Your task to perform on an android device: turn off airplane mode Image 0: 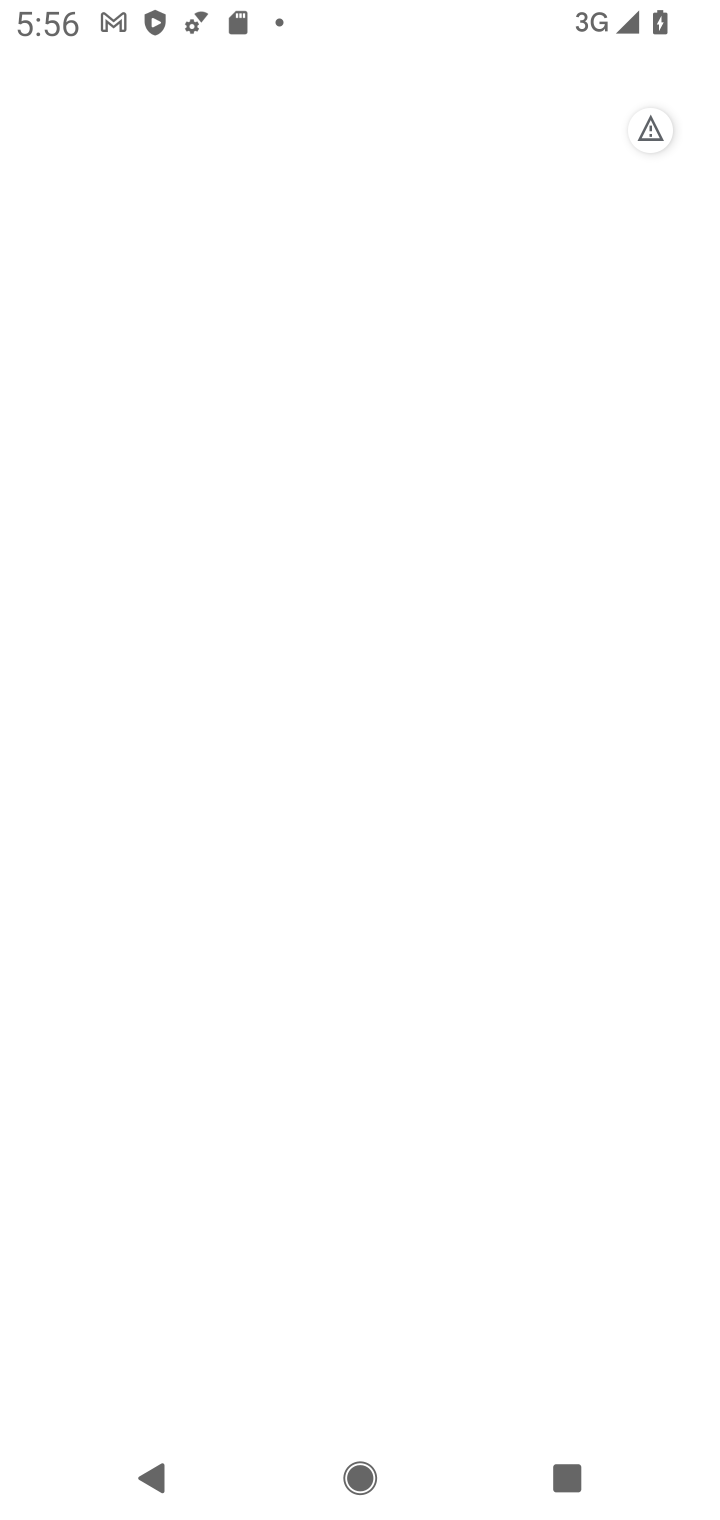
Step 0: press home button
Your task to perform on an android device: turn off airplane mode Image 1: 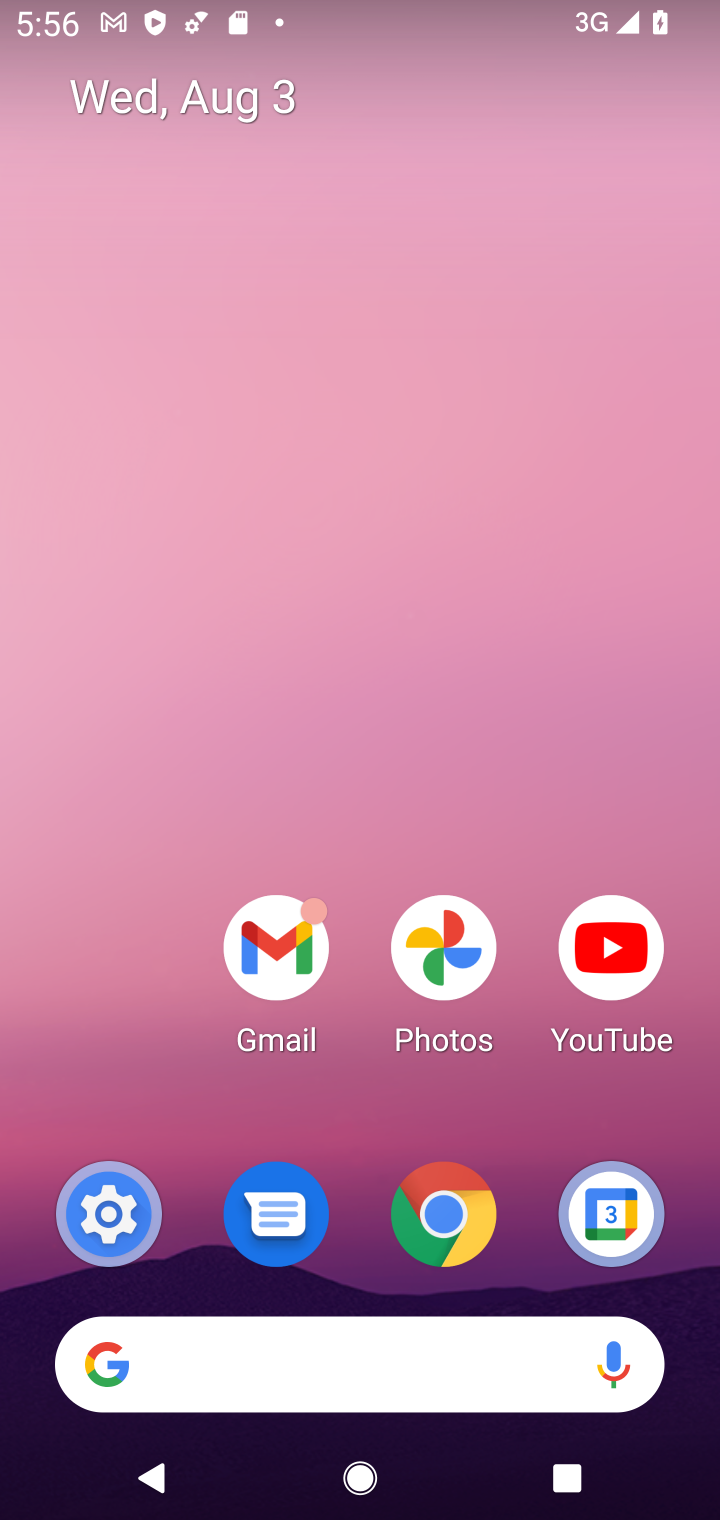
Step 1: drag from (346, 1145) to (525, 0)
Your task to perform on an android device: turn off airplane mode Image 2: 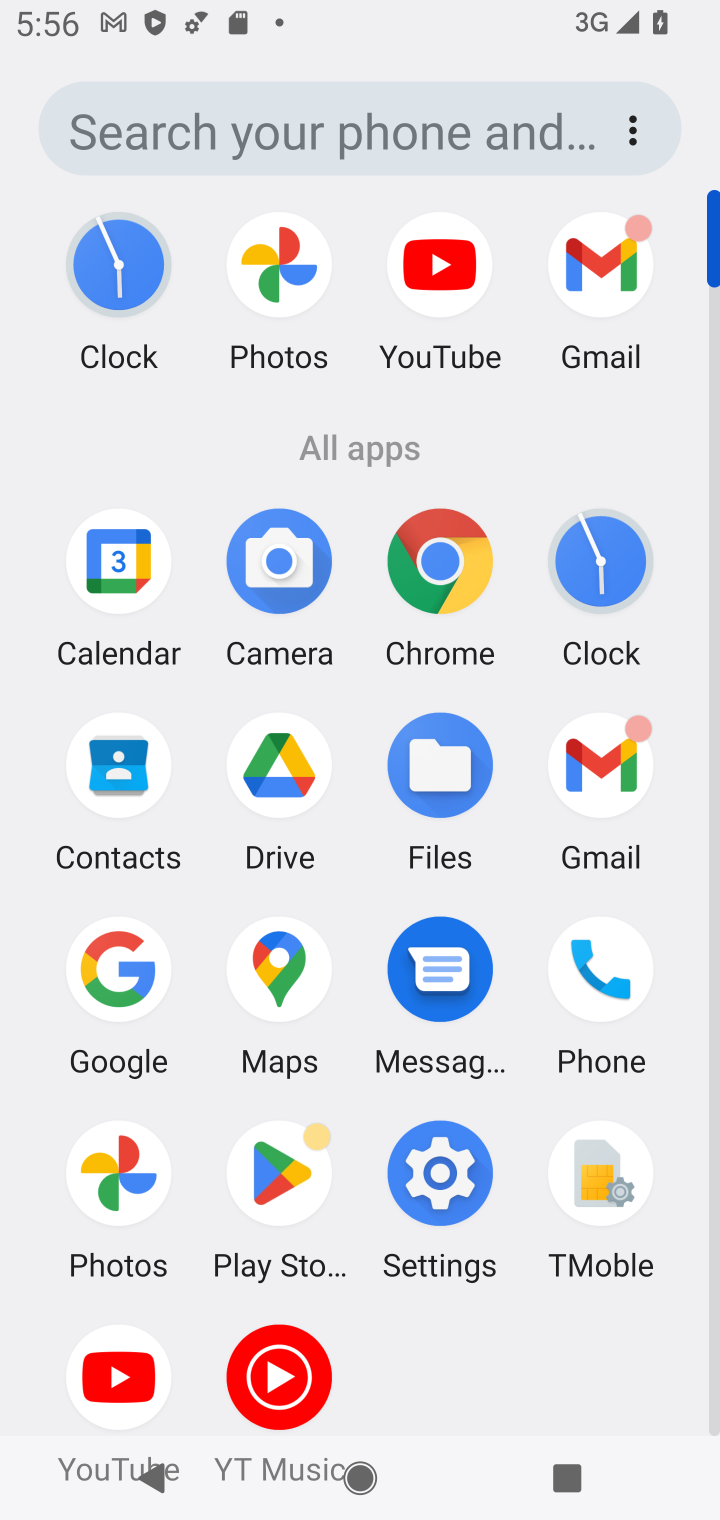
Step 2: click (447, 1188)
Your task to perform on an android device: turn off airplane mode Image 3: 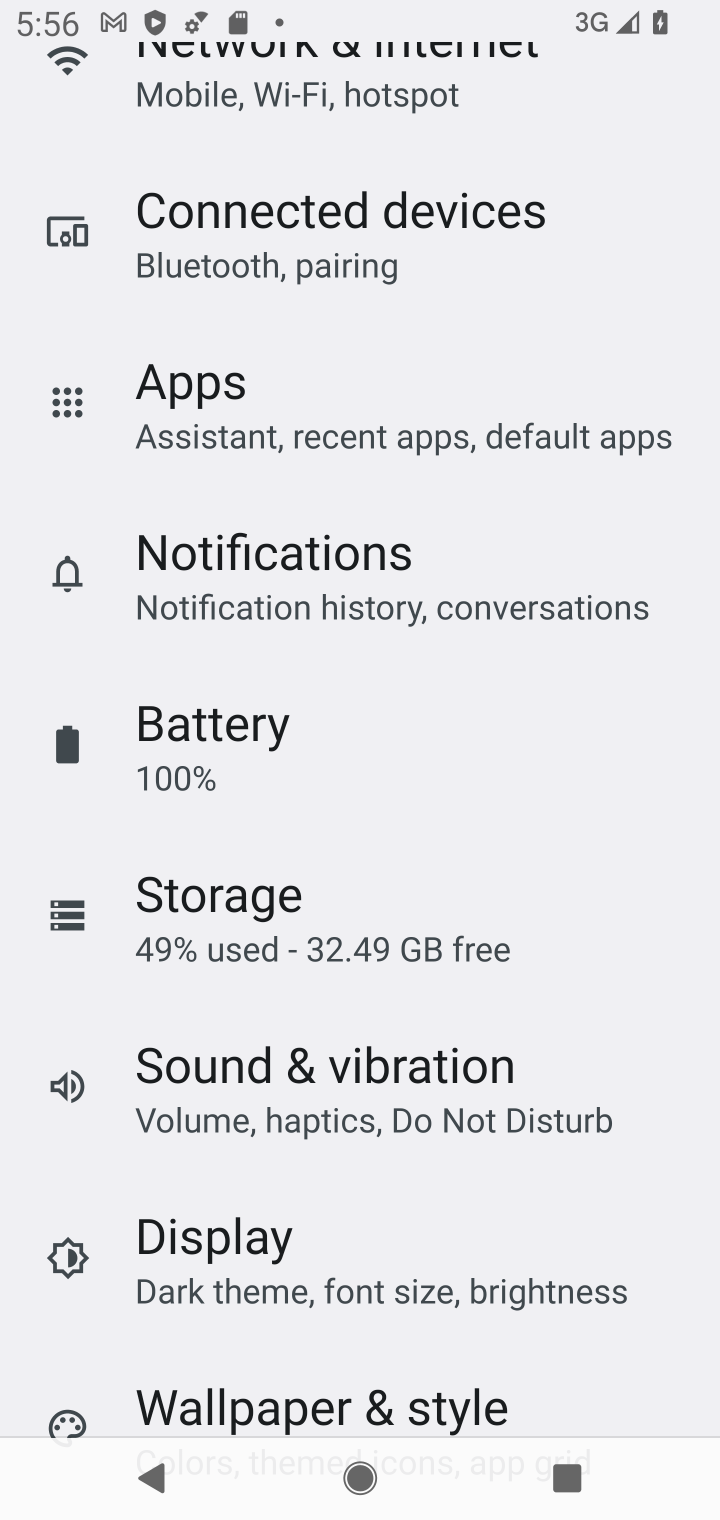
Step 3: drag from (241, 331) to (299, 692)
Your task to perform on an android device: turn off airplane mode Image 4: 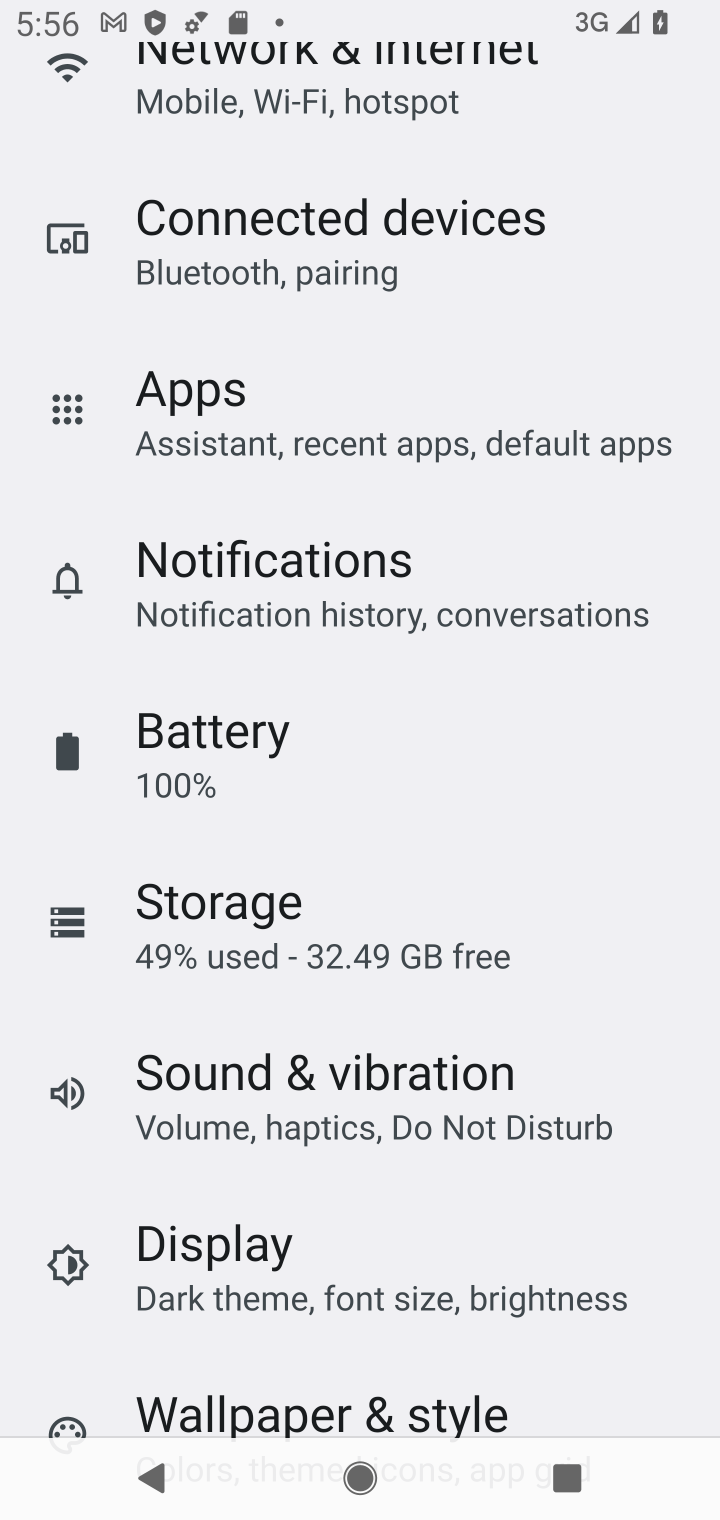
Step 4: drag from (445, 430) to (509, 1125)
Your task to perform on an android device: turn off airplane mode Image 5: 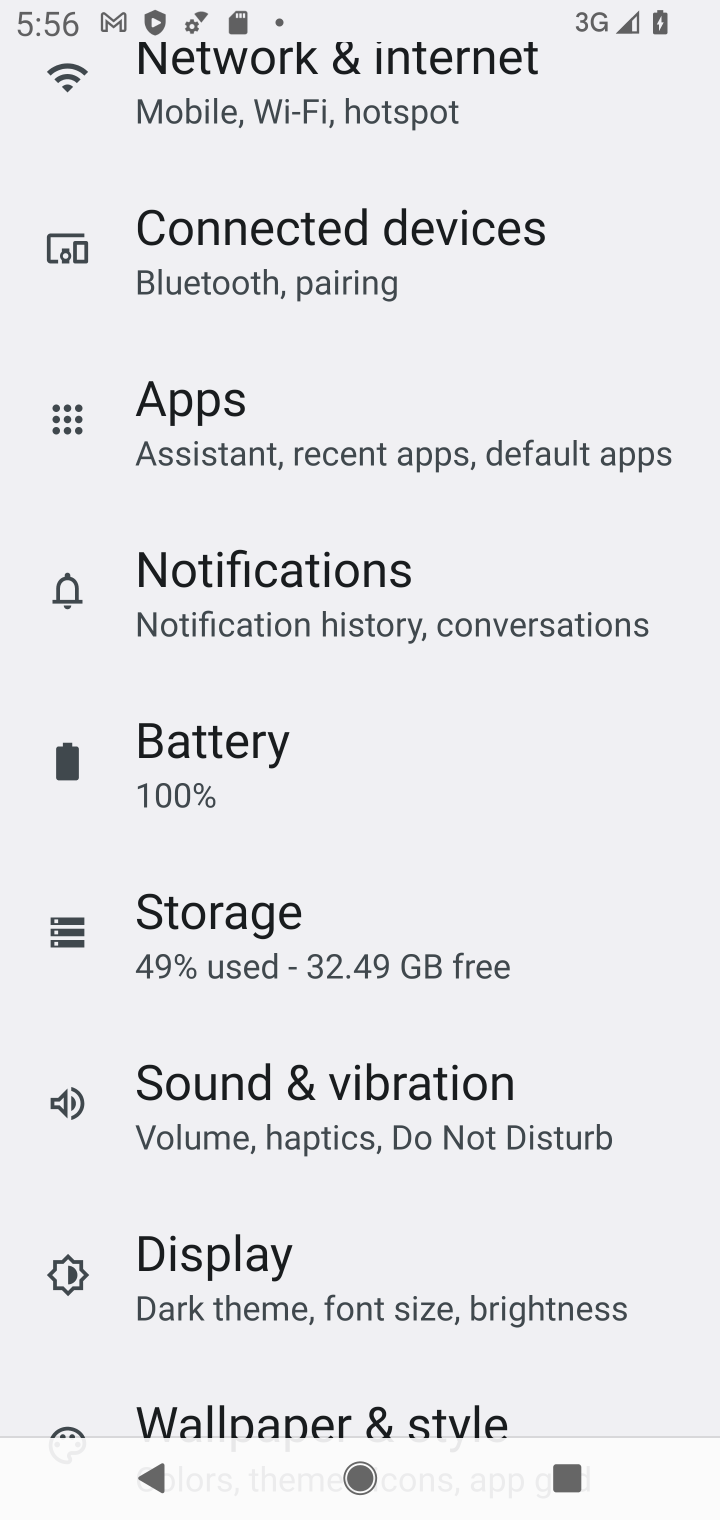
Step 5: drag from (314, 246) to (314, 839)
Your task to perform on an android device: turn off airplane mode Image 6: 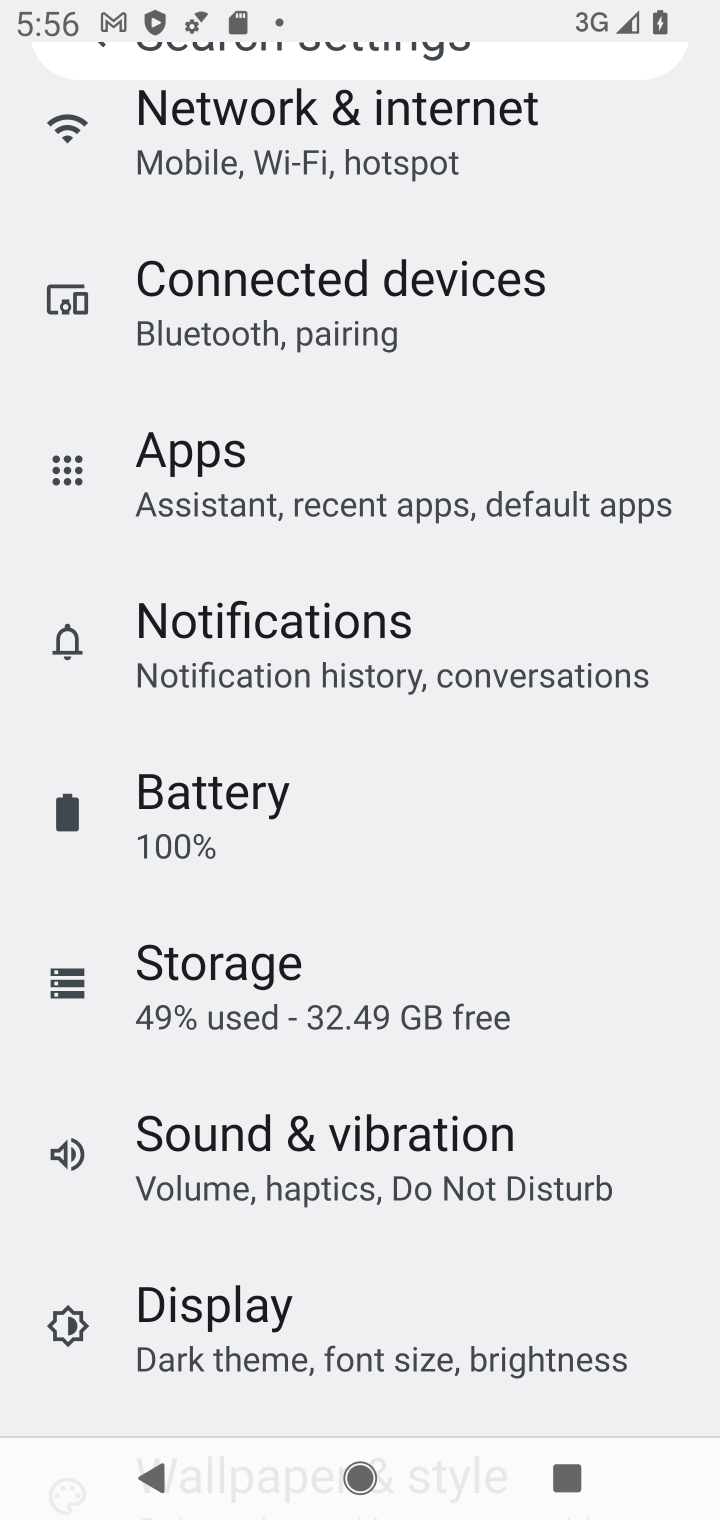
Step 6: drag from (542, 278) to (565, 999)
Your task to perform on an android device: turn off airplane mode Image 7: 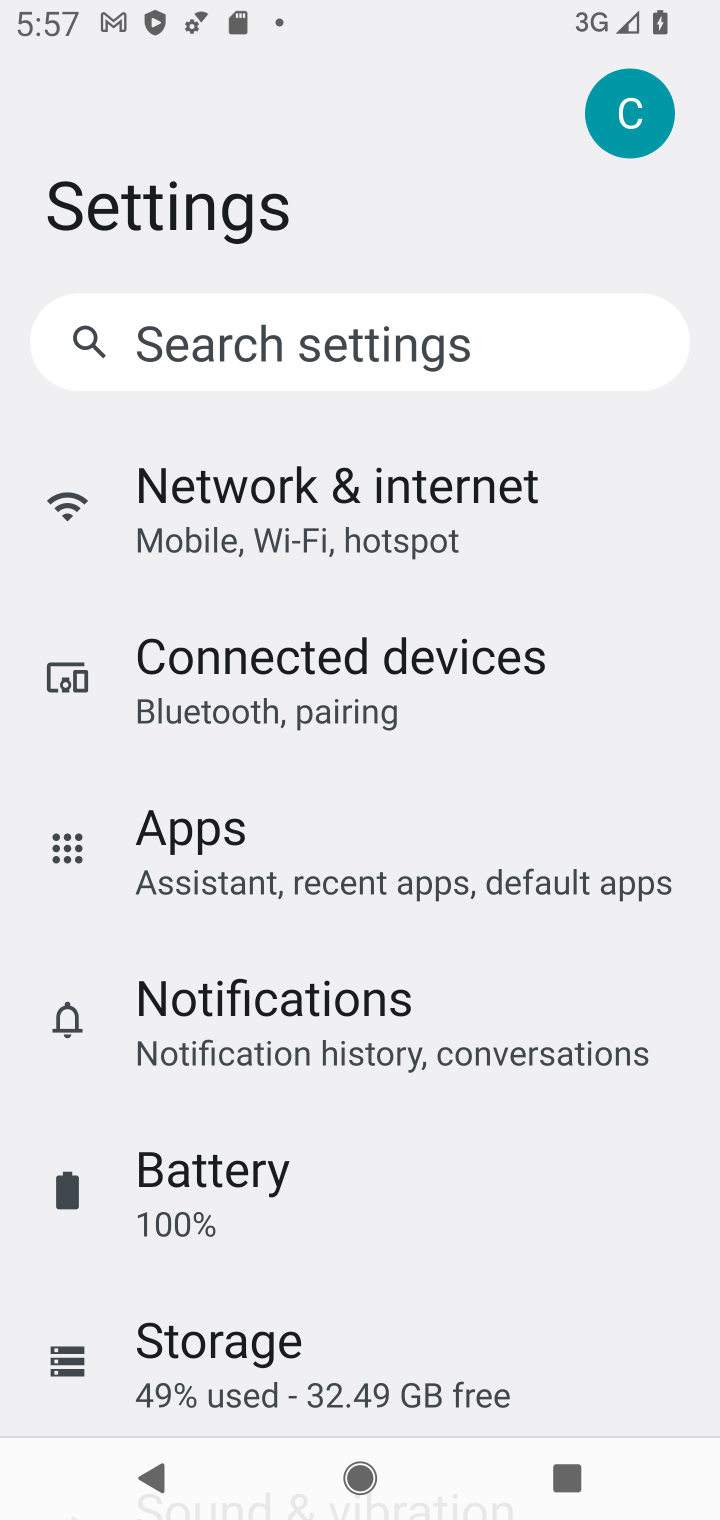
Step 7: click (402, 507)
Your task to perform on an android device: turn off airplane mode Image 8: 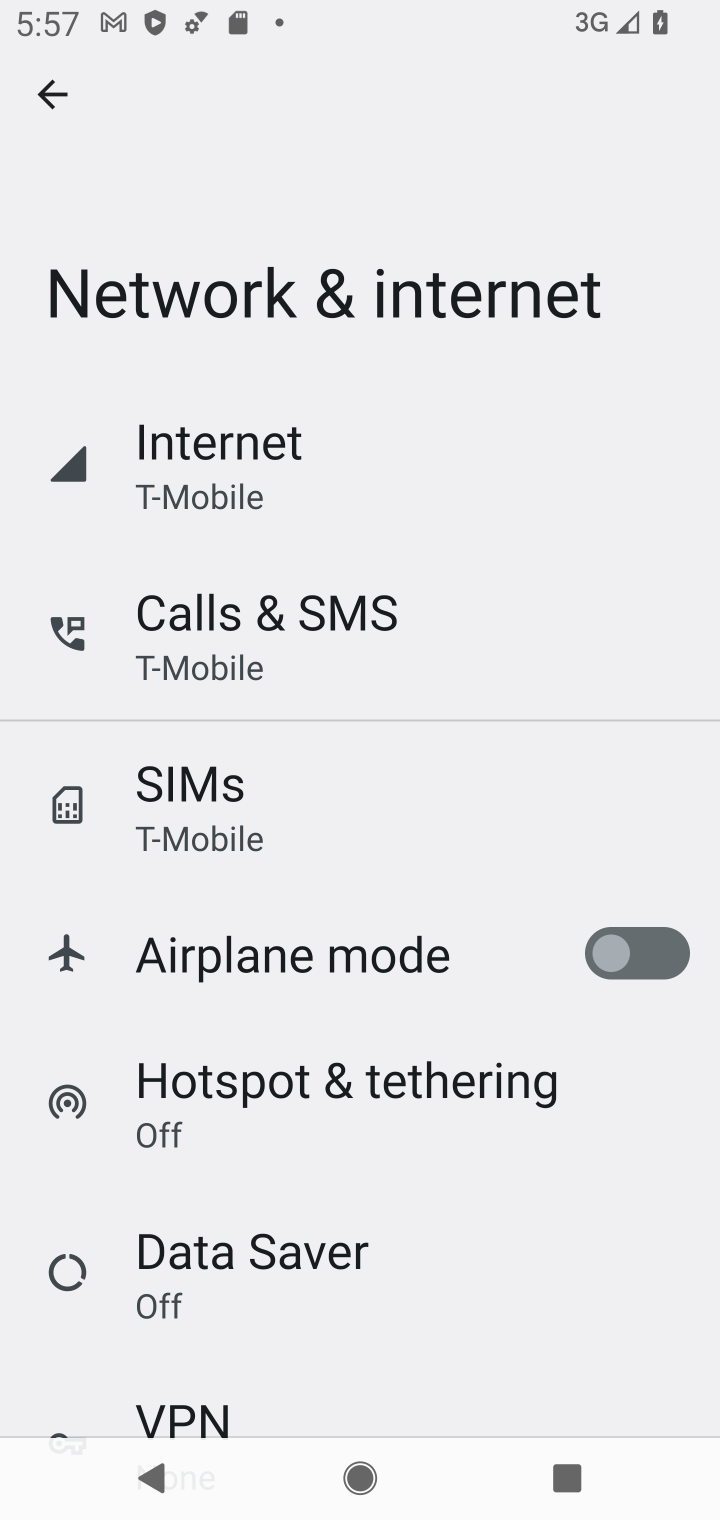
Step 8: task complete